Your task to perform on an android device: Go to notification settings Image 0: 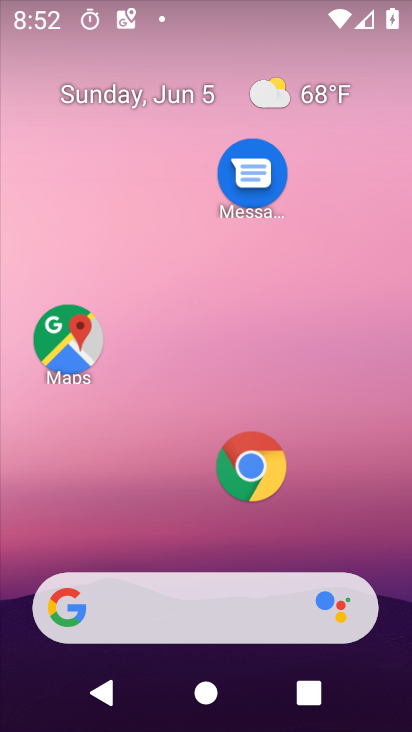
Step 0: drag from (182, 514) to (239, 111)
Your task to perform on an android device: Go to notification settings Image 1: 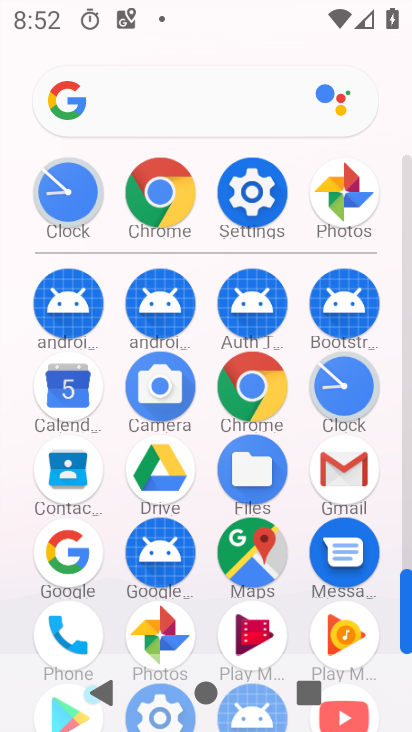
Step 1: click (253, 189)
Your task to perform on an android device: Go to notification settings Image 2: 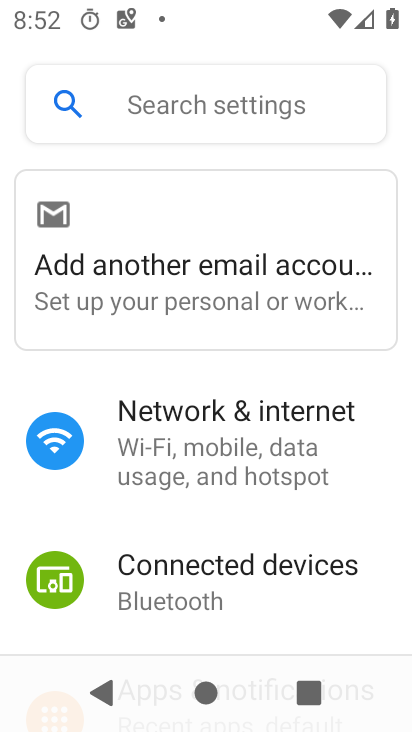
Step 2: drag from (229, 459) to (368, 26)
Your task to perform on an android device: Go to notification settings Image 3: 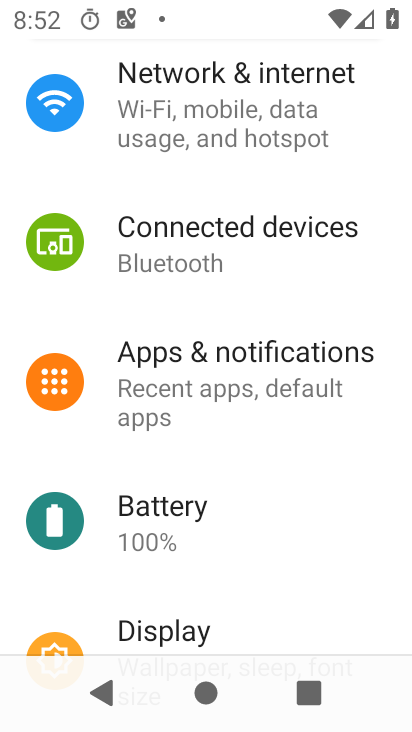
Step 3: click (201, 379)
Your task to perform on an android device: Go to notification settings Image 4: 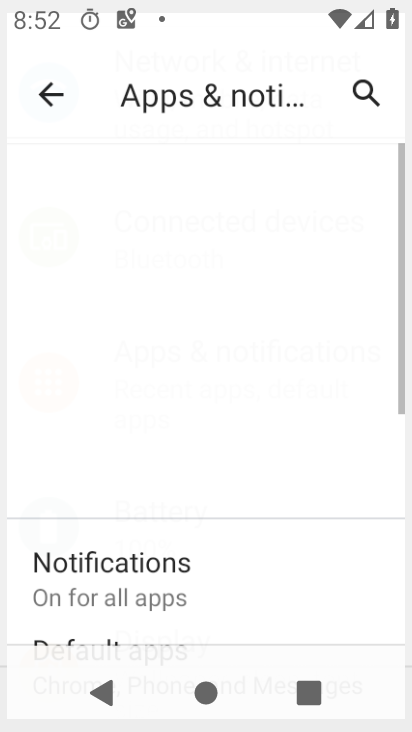
Step 4: drag from (225, 505) to (356, 43)
Your task to perform on an android device: Go to notification settings Image 5: 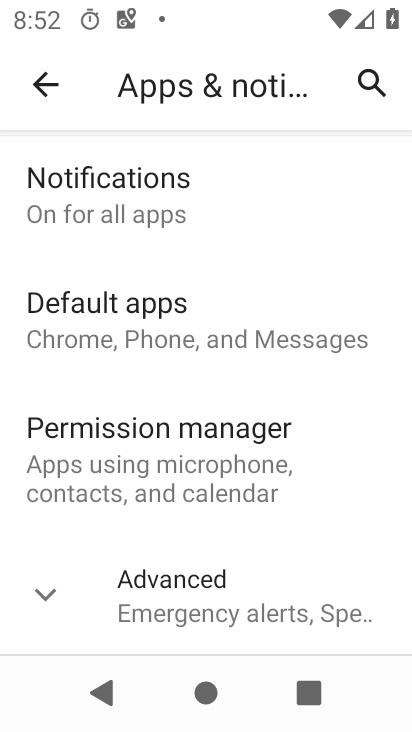
Step 5: click (144, 186)
Your task to perform on an android device: Go to notification settings Image 6: 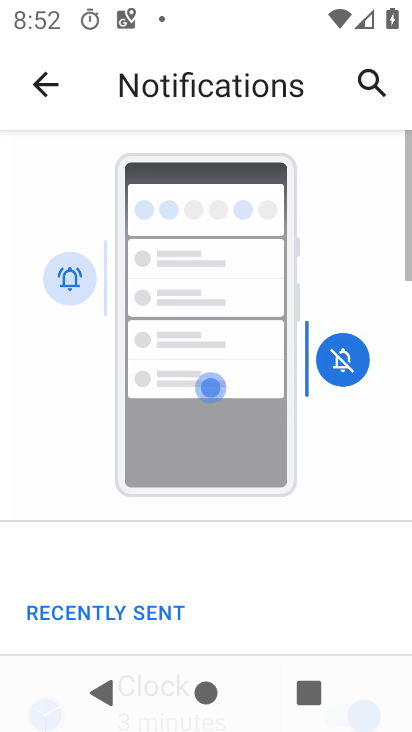
Step 6: task complete